Your task to perform on an android device: Go to sound settings Image 0: 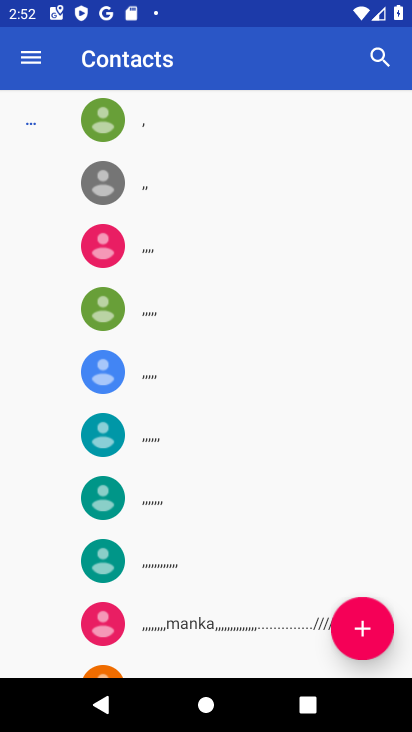
Step 0: press home button
Your task to perform on an android device: Go to sound settings Image 1: 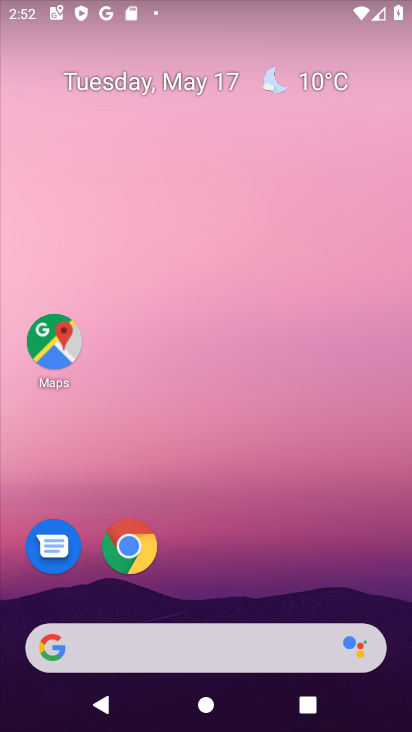
Step 1: drag from (244, 576) to (254, 38)
Your task to perform on an android device: Go to sound settings Image 2: 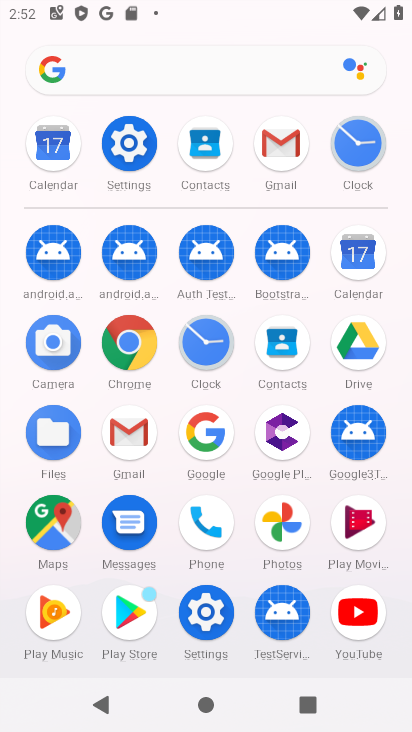
Step 2: click (128, 166)
Your task to perform on an android device: Go to sound settings Image 3: 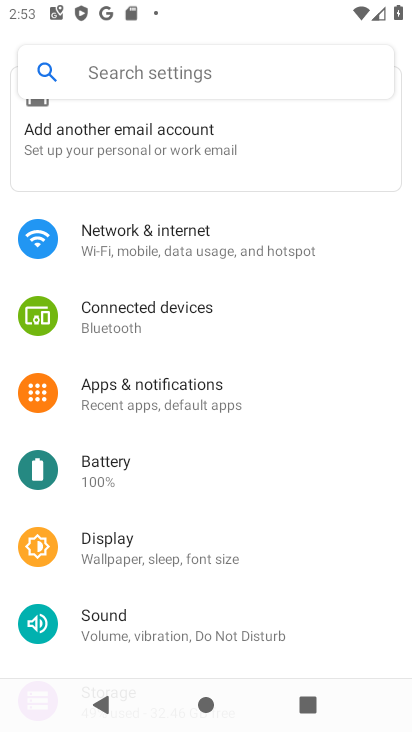
Step 3: drag from (125, 552) to (152, 436)
Your task to perform on an android device: Go to sound settings Image 4: 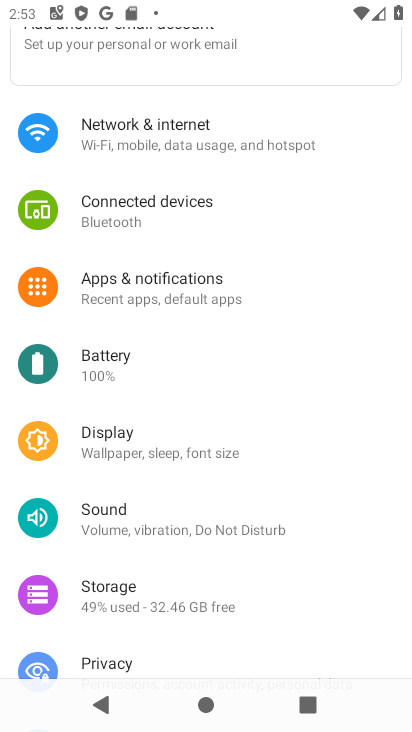
Step 4: click (143, 525)
Your task to perform on an android device: Go to sound settings Image 5: 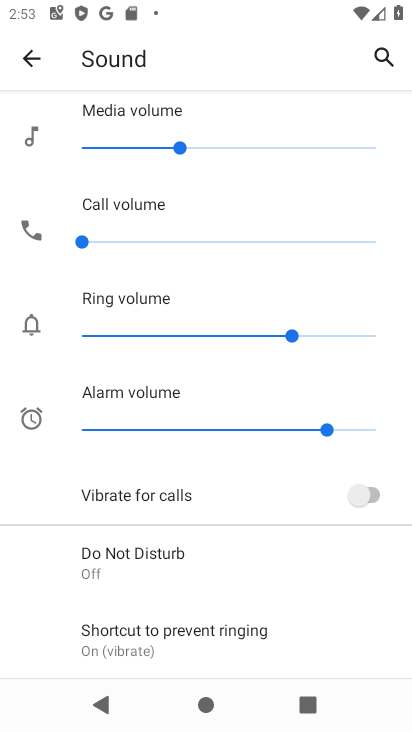
Step 5: task complete